Your task to perform on an android device: all mails in gmail Image 0: 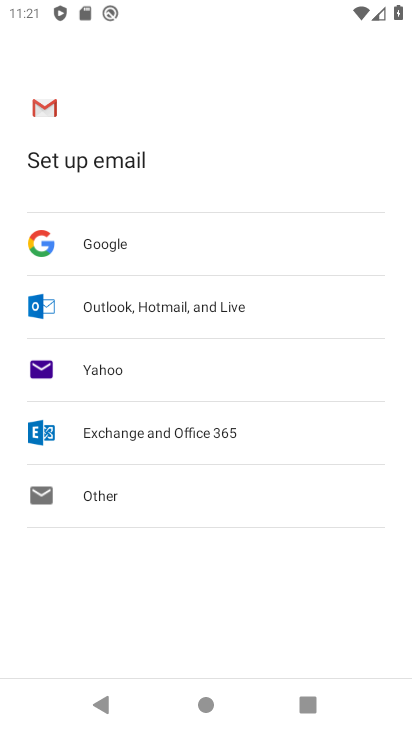
Step 0: press home button
Your task to perform on an android device: all mails in gmail Image 1: 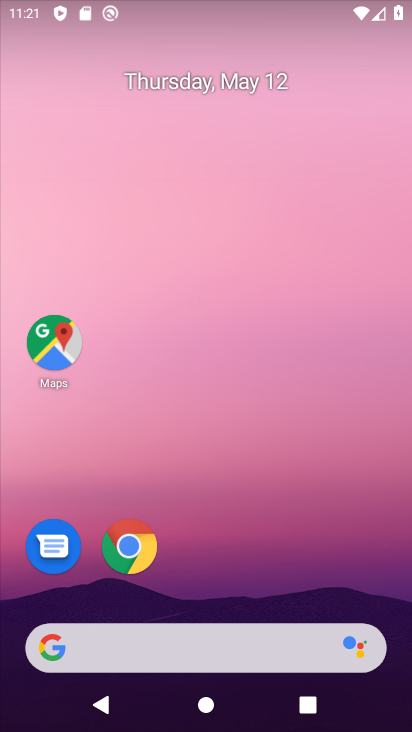
Step 1: drag from (237, 725) to (235, 100)
Your task to perform on an android device: all mails in gmail Image 2: 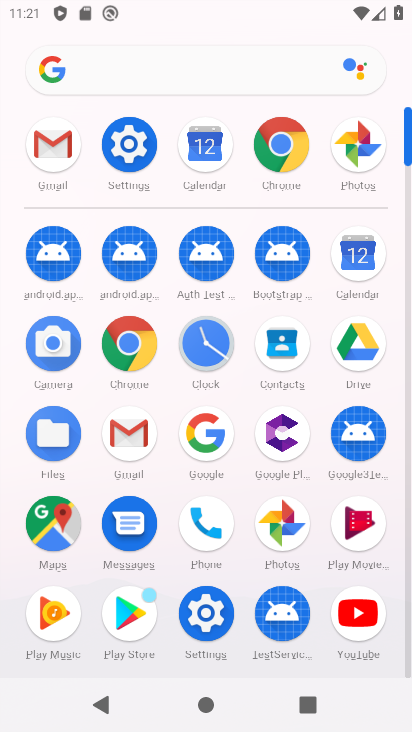
Step 2: click (135, 437)
Your task to perform on an android device: all mails in gmail Image 3: 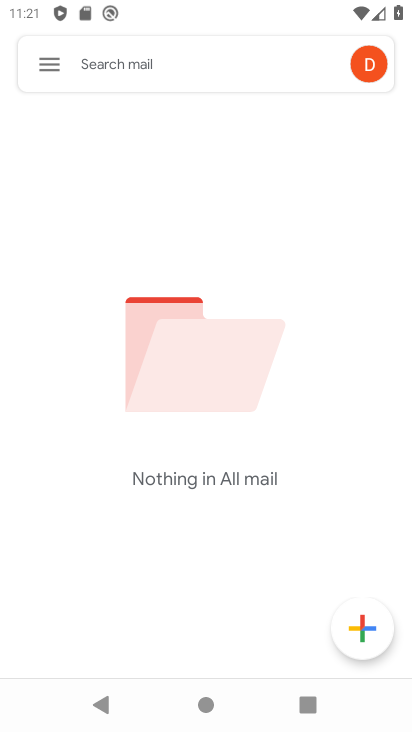
Step 3: click (43, 67)
Your task to perform on an android device: all mails in gmail Image 4: 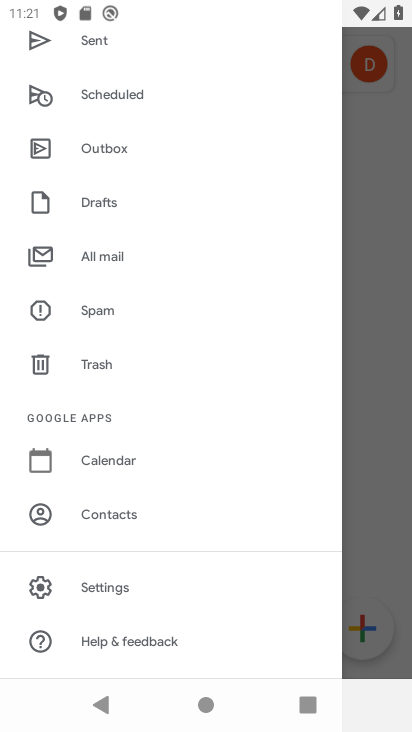
Step 4: drag from (161, 202) to (162, 430)
Your task to perform on an android device: all mails in gmail Image 5: 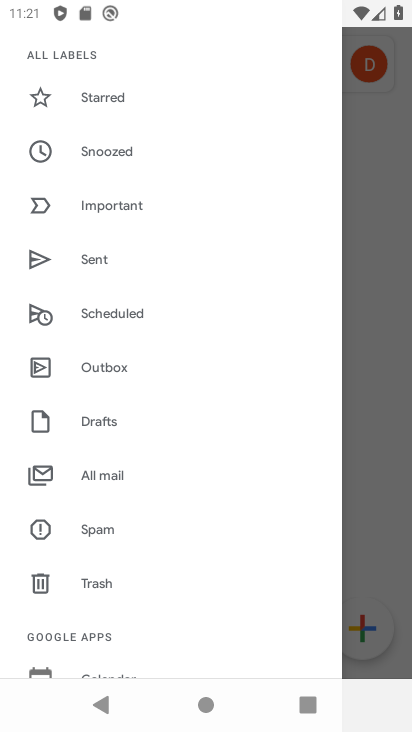
Step 5: click (103, 476)
Your task to perform on an android device: all mails in gmail Image 6: 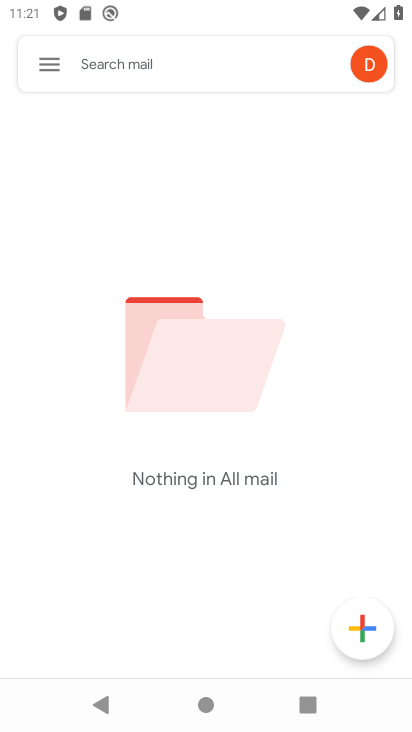
Step 6: task complete